Your task to perform on an android device: Open accessibility settings Image 0: 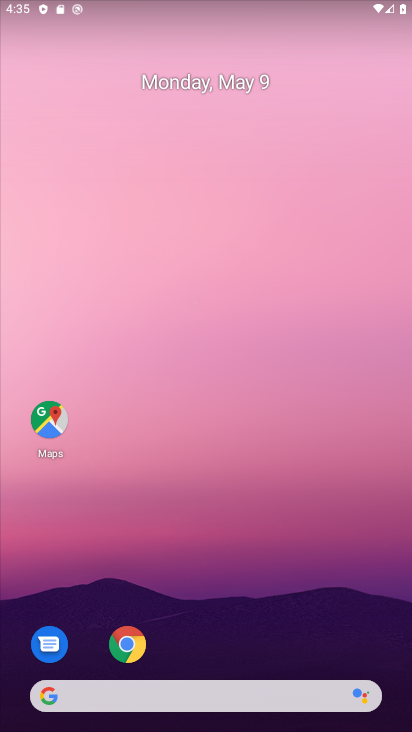
Step 0: drag from (183, 359) to (116, 14)
Your task to perform on an android device: Open accessibility settings Image 1: 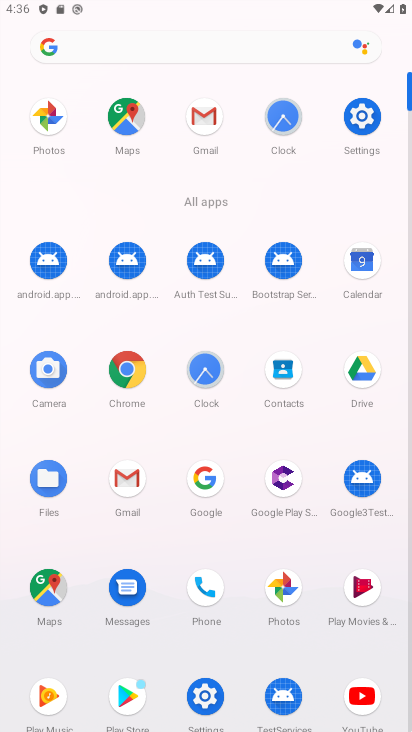
Step 1: click (362, 121)
Your task to perform on an android device: Open accessibility settings Image 2: 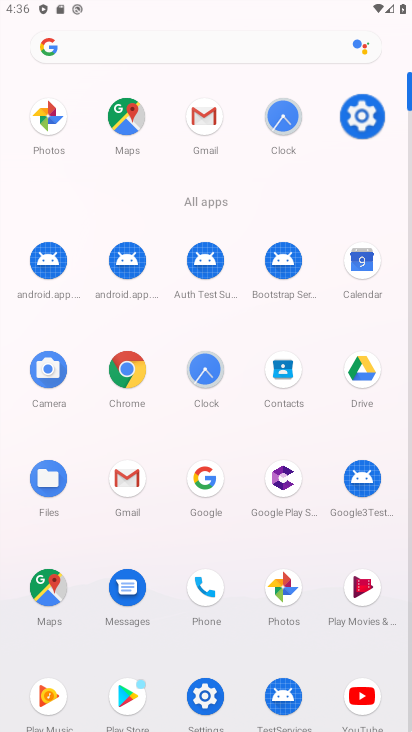
Step 2: click (368, 124)
Your task to perform on an android device: Open accessibility settings Image 3: 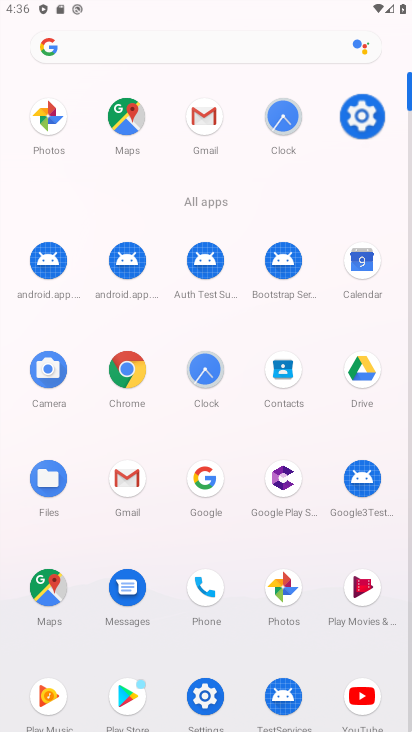
Step 3: click (368, 125)
Your task to perform on an android device: Open accessibility settings Image 4: 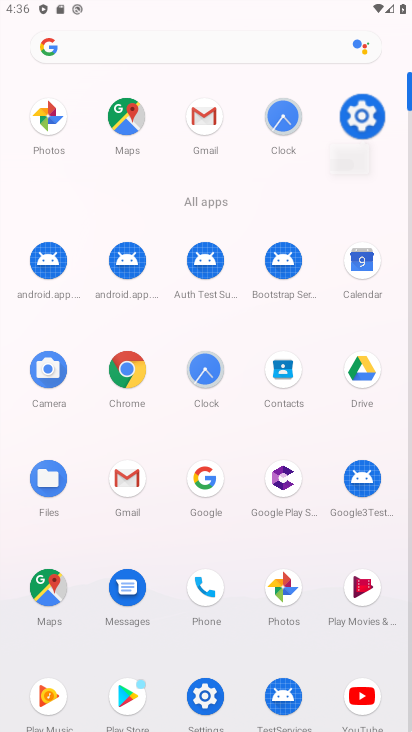
Step 4: click (368, 125)
Your task to perform on an android device: Open accessibility settings Image 5: 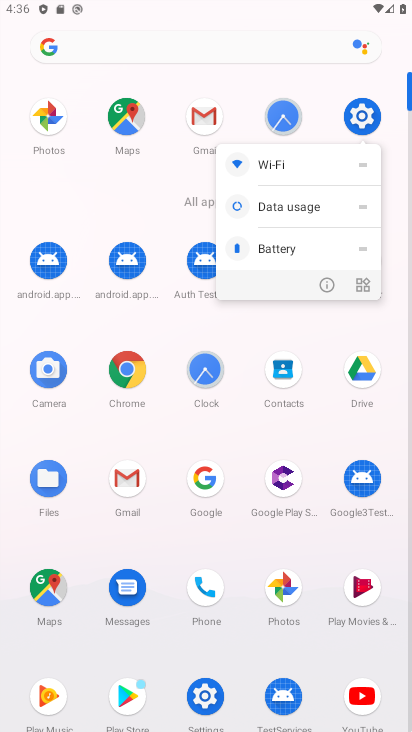
Step 5: click (378, 110)
Your task to perform on an android device: Open accessibility settings Image 6: 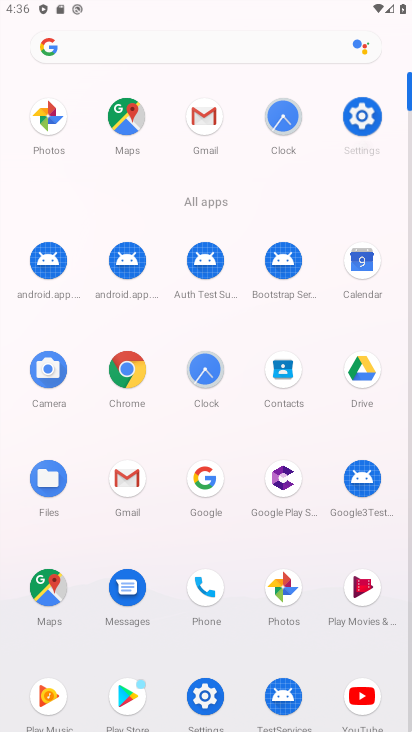
Step 6: click (378, 110)
Your task to perform on an android device: Open accessibility settings Image 7: 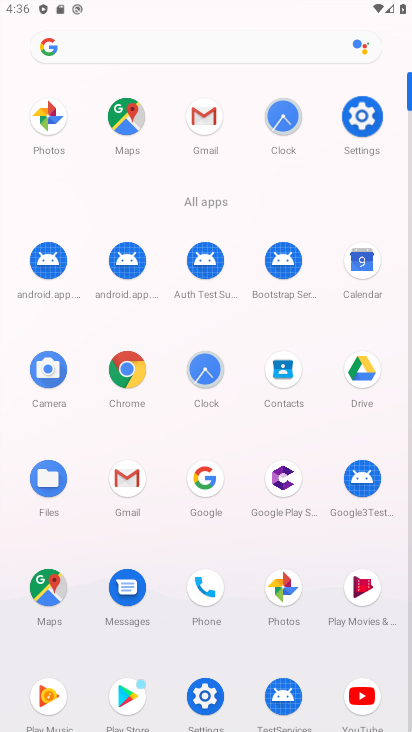
Step 7: click (378, 110)
Your task to perform on an android device: Open accessibility settings Image 8: 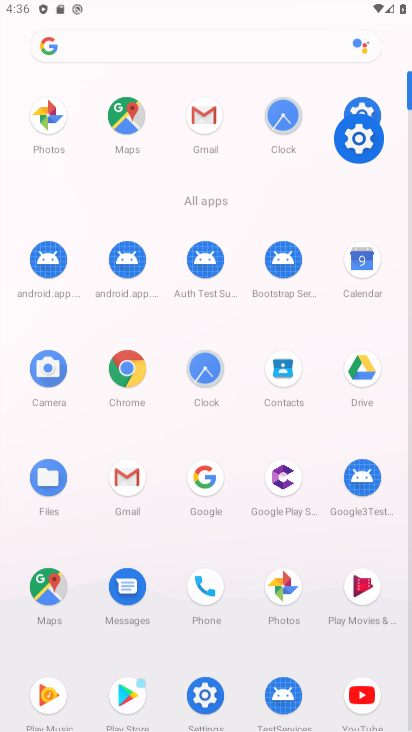
Step 8: click (365, 111)
Your task to perform on an android device: Open accessibility settings Image 9: 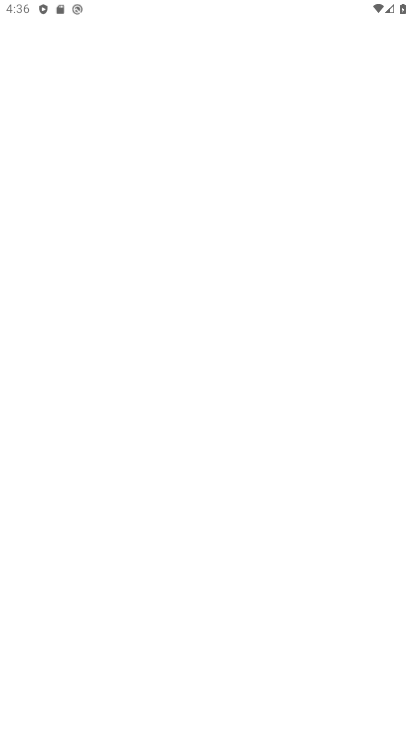
Step 9: click (358, 124)
Your task to perform on an android device: Open accessibility settings Image 10: 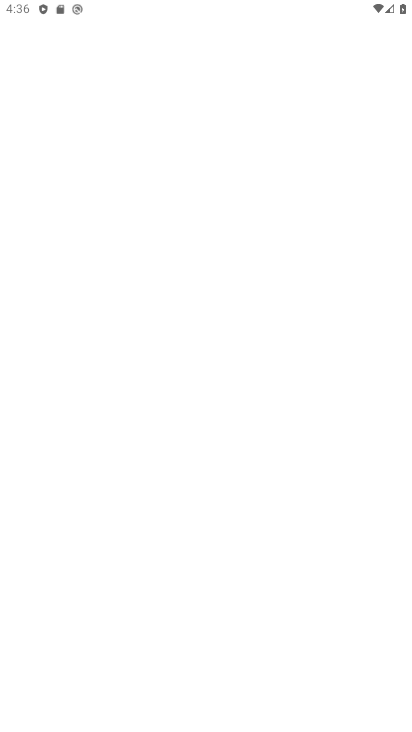
Step 10: click (357, 125)
Your task to perform on an android device: Open accessibility settings Image 11: 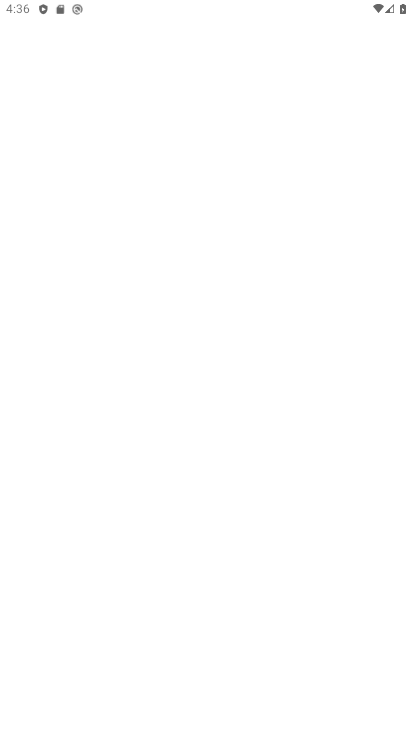
Step 11: click (357, 125)
Your task to perform on an android device: Open accessibility settings Image 12: 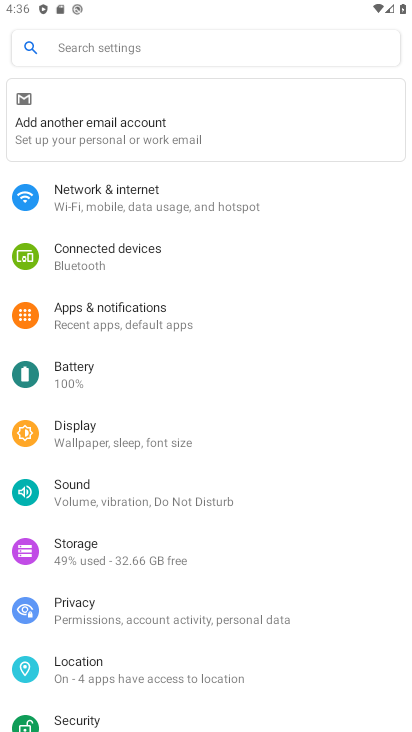
Step 12: drag from (104, 639) to (69, 381)
Your task to perform on an android device: Open accessibility settings Image 13: 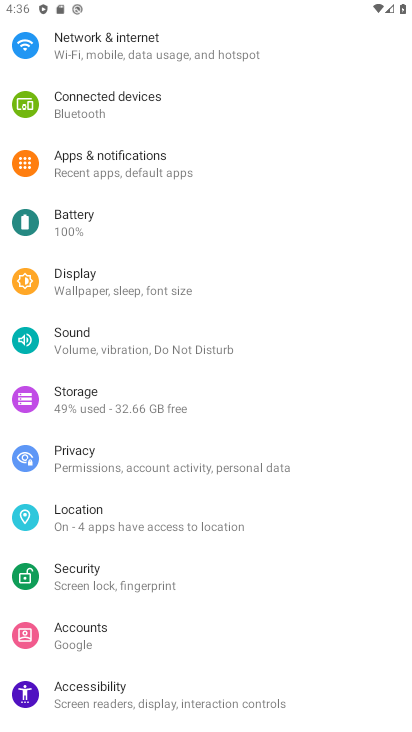
Step 13: drag from (155, 539) to (166, 162)
Your task to perform on an android device: Open accessibility settings Image 14: 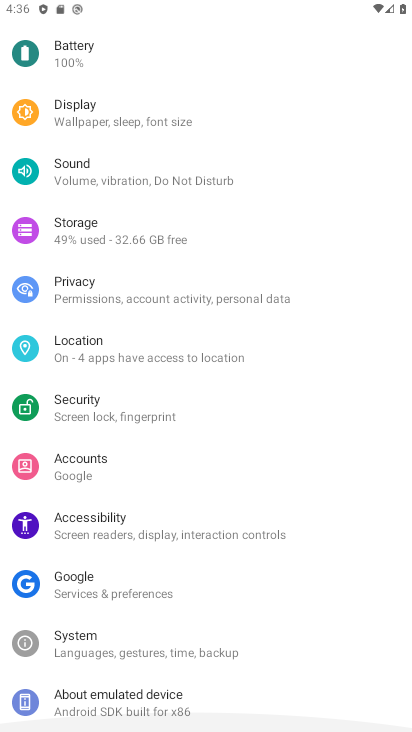
Step 14: drag from (166, 525) to (121, 112)
Your task to perform on an android device: Open accessibility settings Image 15: 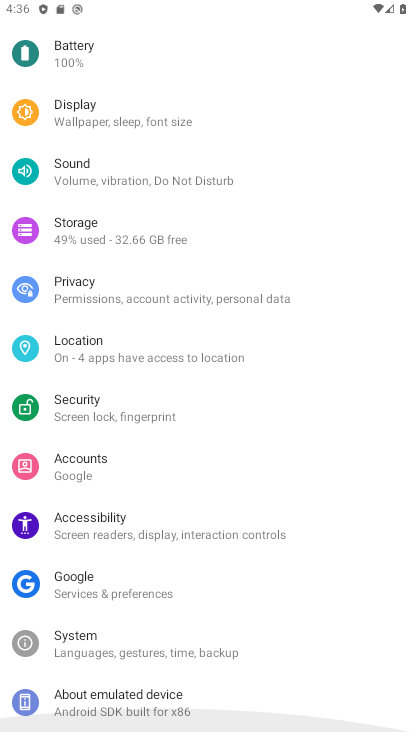
Step 15: drag from (141, 172) to (140, 118)
Your task to perform on an android device: Open accessibility settings Image 16: 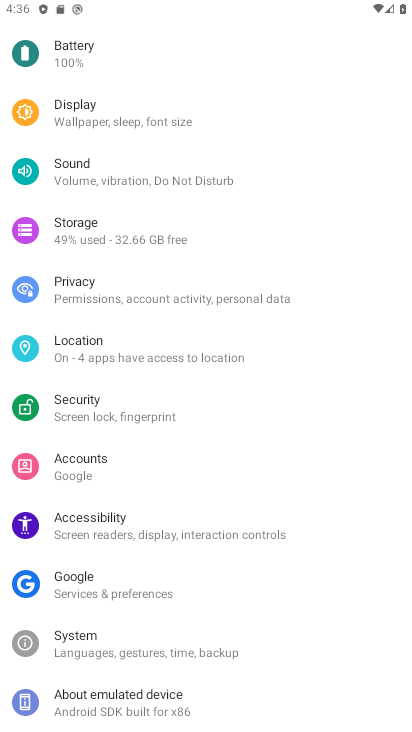
Step 16: click (92, 534)
Your task to perform on an android device: Open accessibility settings Image 17: 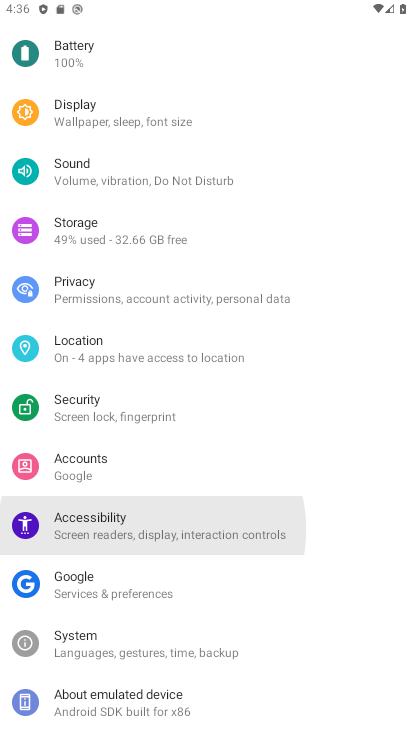
Step 17: click (92, 534)
Your task to perform on an android device: Open accessibility settings Image 18: 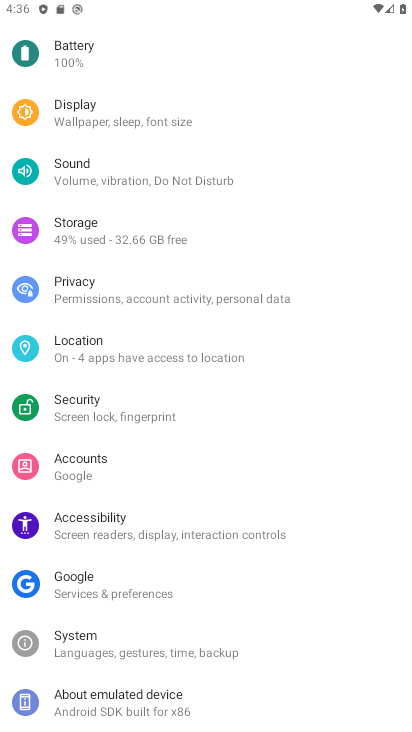
Step 18: click (92, 533)
Your task to perform on an android device: Open accessibility settings Image 19: 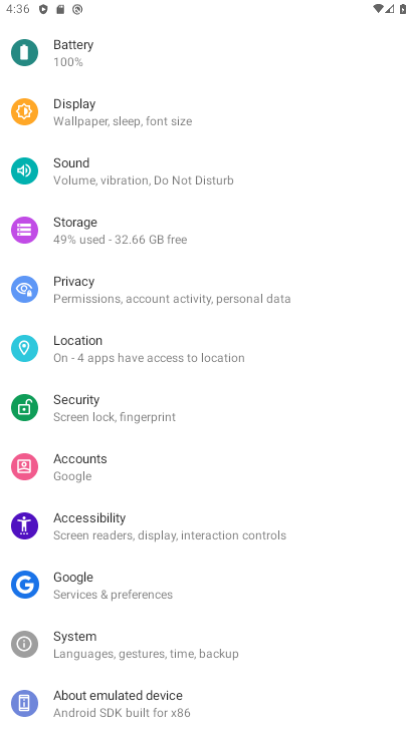
Step 19: click (92, 533)
Your task to perform on an android device: Open accessibility settings Image 20: 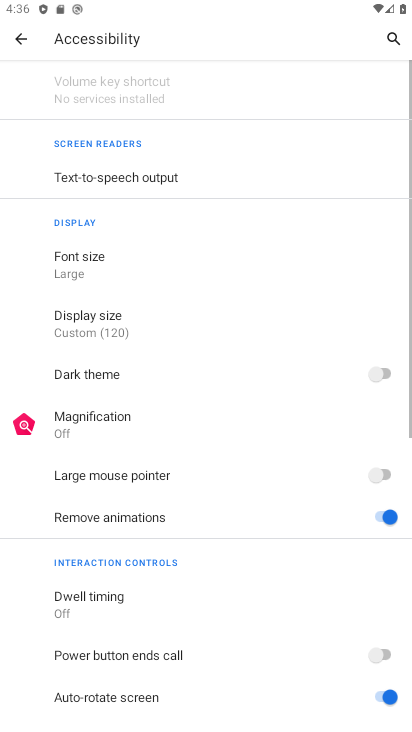
Step 20: task complete